Your task to perform on an android device: move a message to another label in the gmail app Image 0: 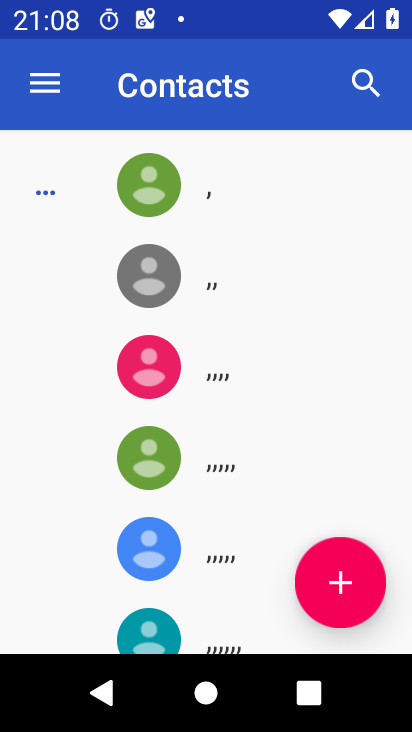
Step 0: press home button
Your task to perform on an android device: move a message to another label in the gmail app Image 1: 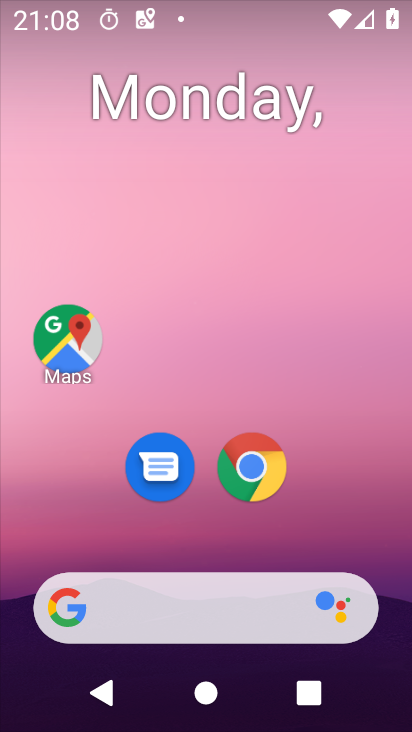
Step 1: drag from (198, 506) to (296, 58)
Your task to perform on an android device: move a message to another label in the gmail app Image 2: 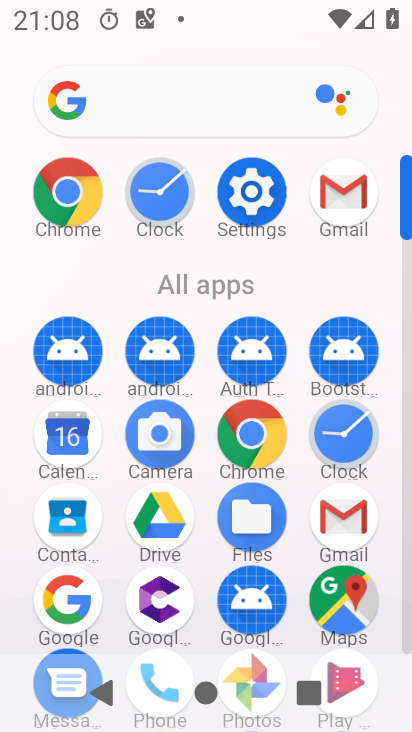
Step 2: click (347, 197)
Your task to perform on an android device: move a message to another label in the gmail app Image 3: 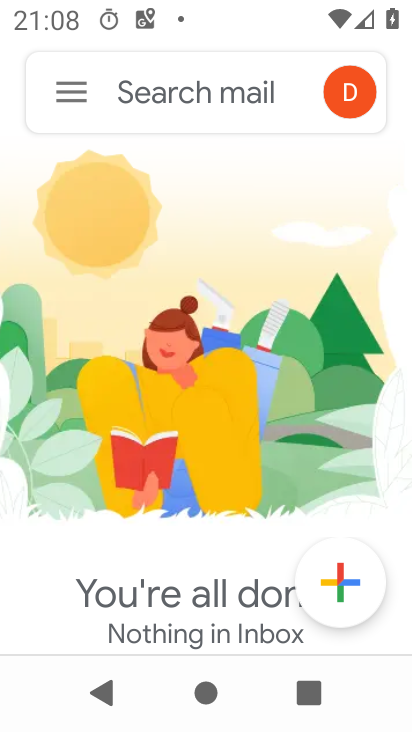
Step 3: task complete